Your task to perform on an android device: toggle notification dots Image 0: 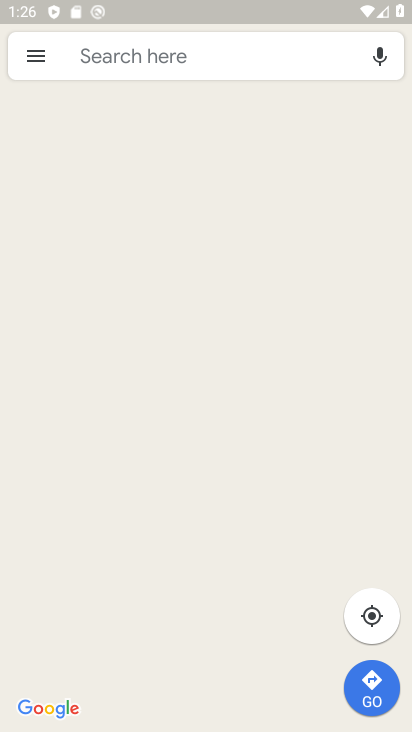
Step 0: press home button
Your task to perform on an android device: toggle notification dots Image 1: 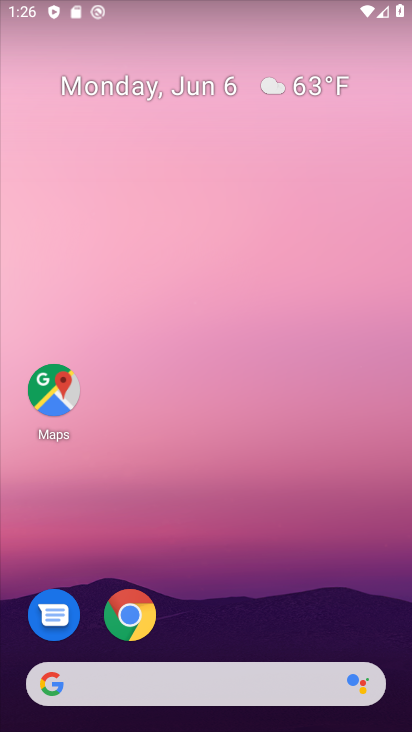
Step 1: drag from (255, 636) to (306, 155)
Your task to perform on an android device: toggle notification dots Image 2: 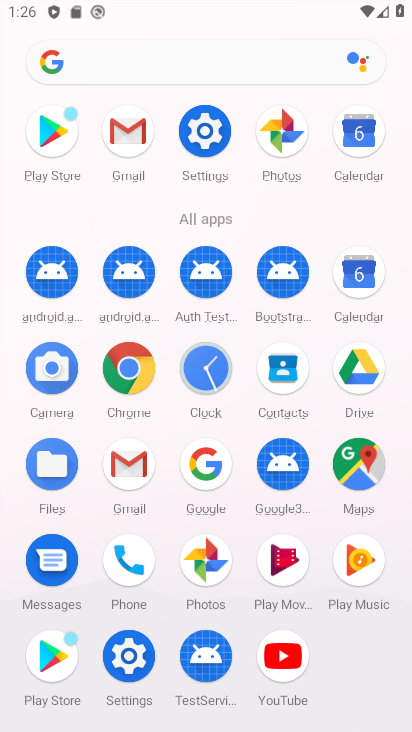
Step 2: click (132, 668)
Your task to perform on an android device: toggle notification dots Image 3: 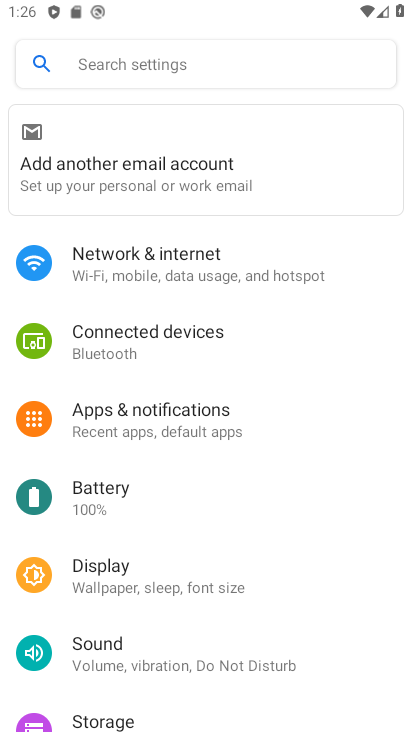
Step 3: drag from (171, 639) to (252, 338)
Your task to perform on an android device: toggle notification dots Image 4: 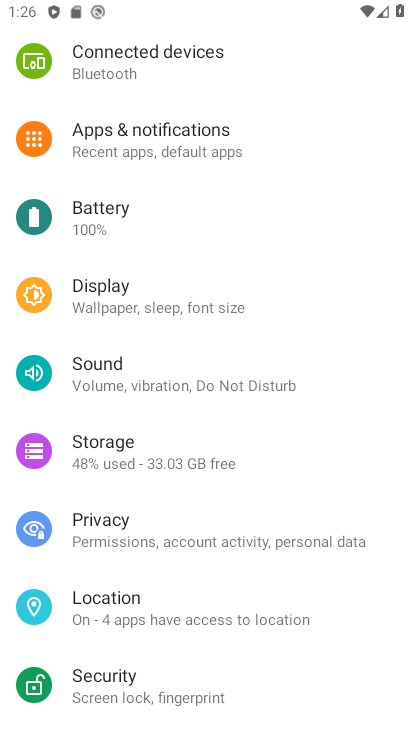
Step 4: click (238, 161)
Your task to perform on an android device: toggle notification dots Image 5: 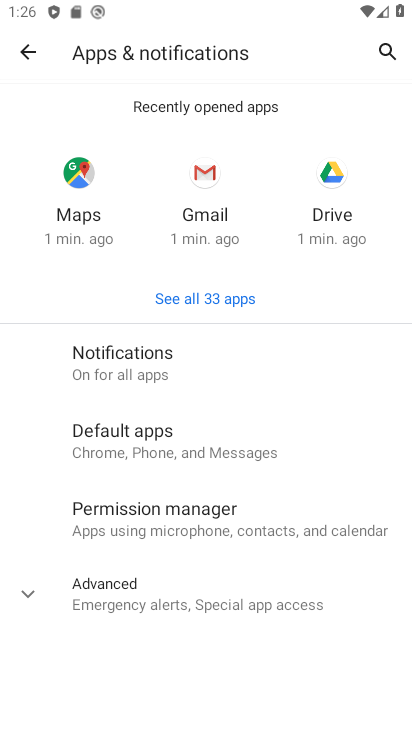
Step 5: click (197, 380)
Your task to perform on an android device: toggle notification dots Image 6: 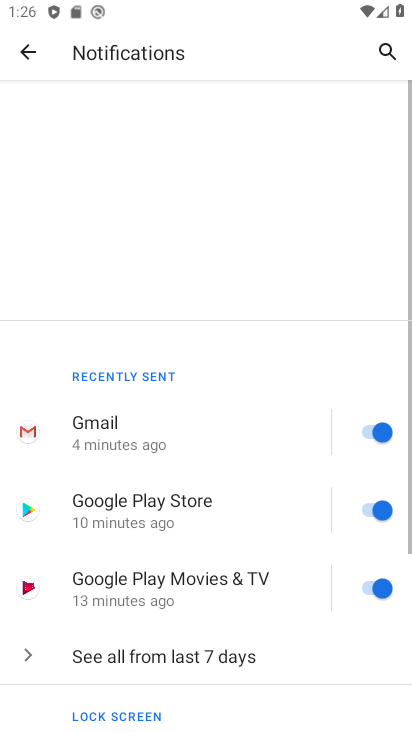
Step 6: drag from (164, 612) to (269, 173)
Your task to perform on an android device: toggle notification dots Image 7: 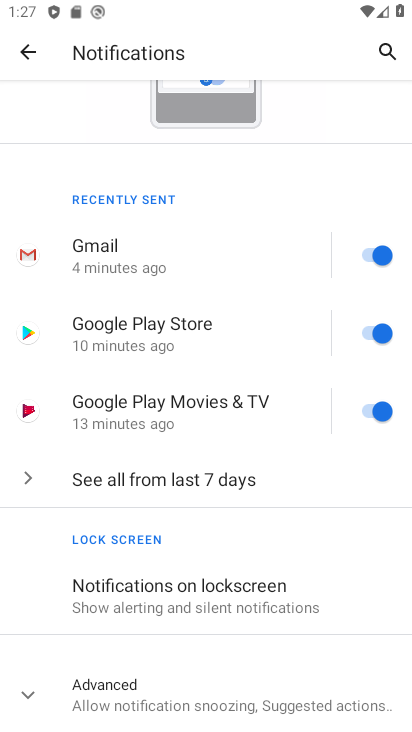
Step 7: click (203, 692)
Your task to perform on an android device: toggle notification dots Image 8: 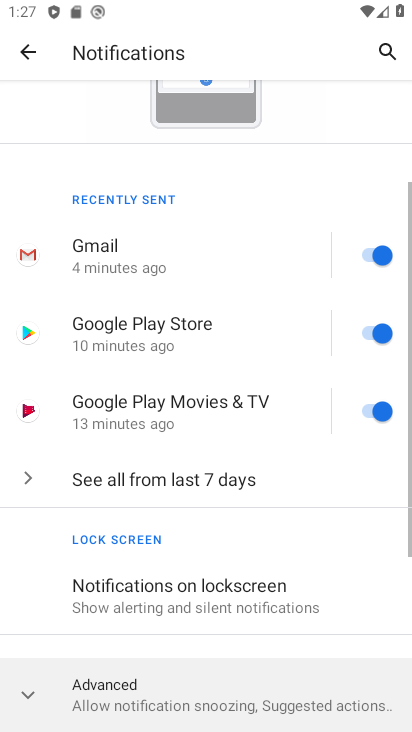
Step 8: drag from (203, 687) to (312, 319)
Your task to perform on an android device: toggle notification dots Image 9: 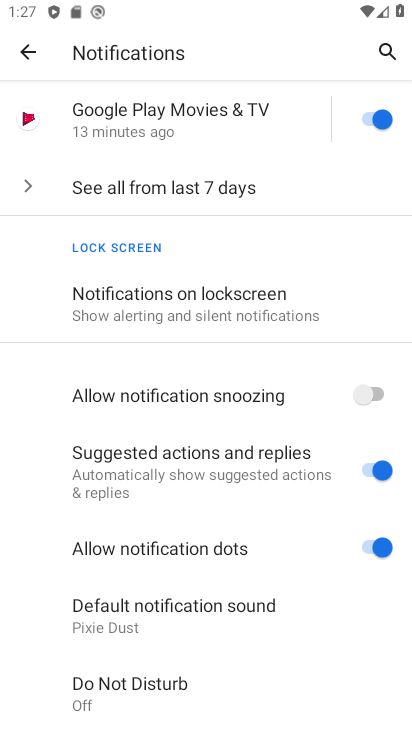
Step 9: drag from (267, 663) to (311, 441)
Your task to perform on an android device: toggle notification dots Image 10: 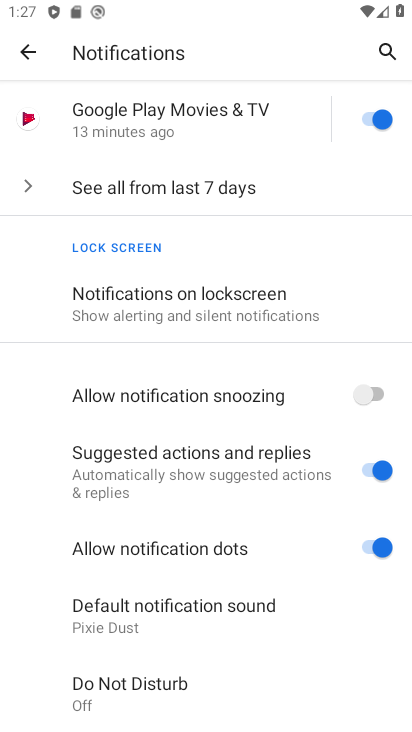
Step 10: click (374, 557)
Your task to perform on an android device: toggle notification dots Image 11: 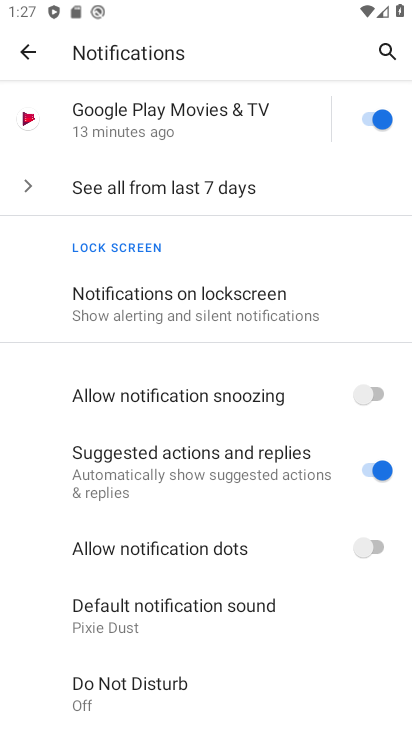
Step 11: task complete